Your task to perform on an android device: turn on javascript in the chrome app Image 0: 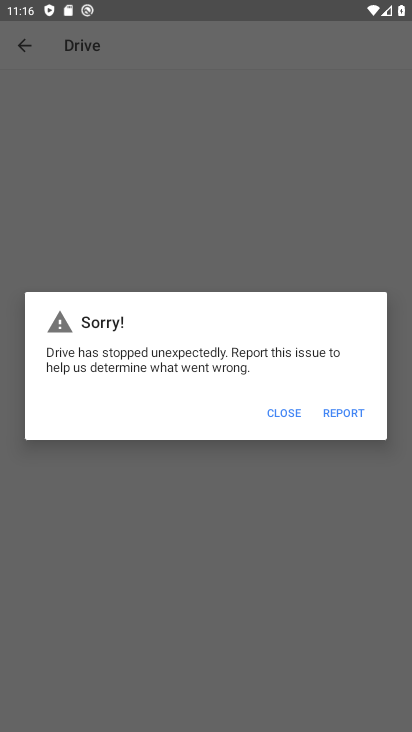
Step 0: click (286, 397)
Your task to perform on an android device: turn on javascript in the chrome app Image 1: 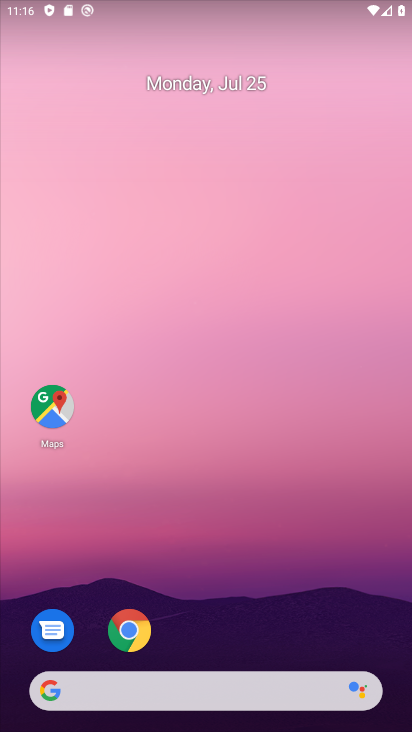
Step 1: drag from (233, 464) to (139, 131)
Your task to perform on an android device: turn on javascript in the chrome app Image 2: 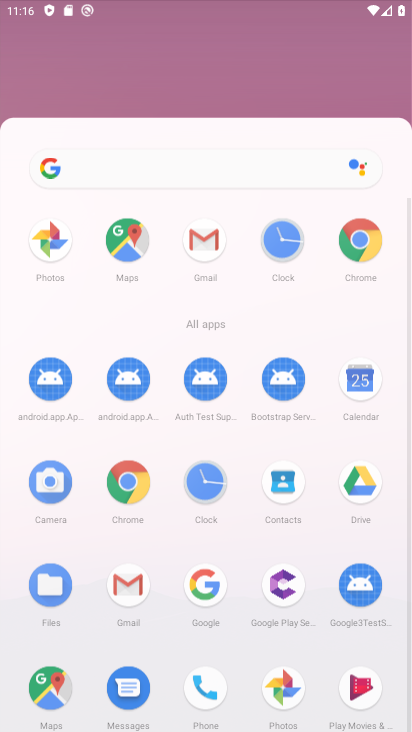
Step 2: drag from (232, 515) to (232, 43)
Your task to perform on an android device: turn on javascript in the chrome app Image 3: 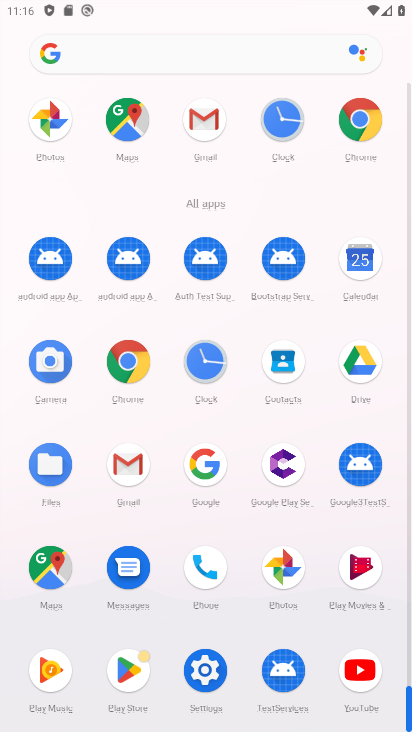
Step 3: click (352, 125)
Your task to perform on an android device: turn on javascript in the chrome app Image 4: 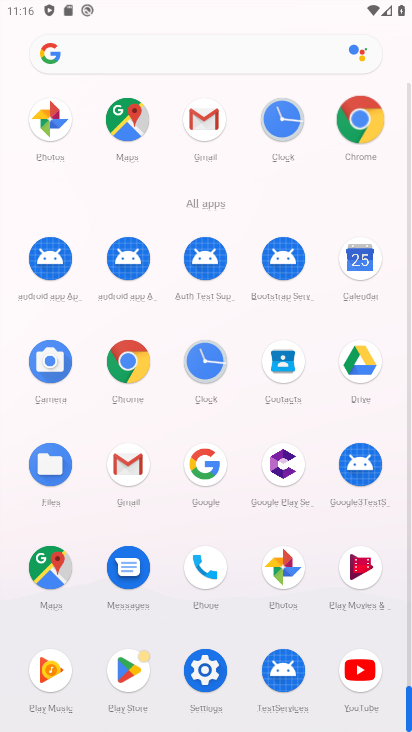
Step 4: click (358, 127)
Your task to perform on an android device: turn on javascript in the chrome app Image 5: 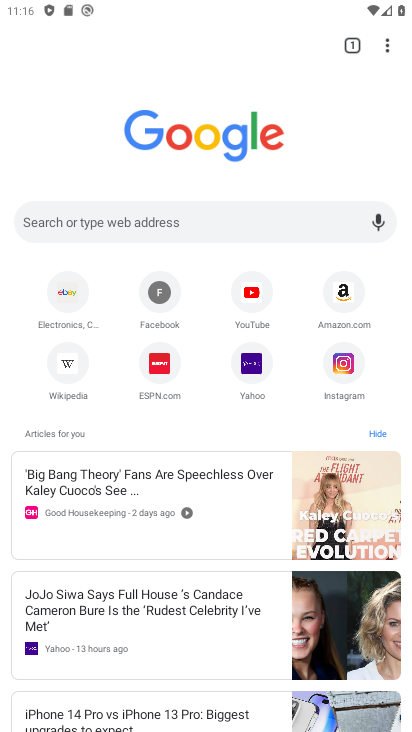
Step 5: drag from (387, 40) to (226, 369)
Your task to perform on an android device: turn on javascript in the chrome app Image 6: 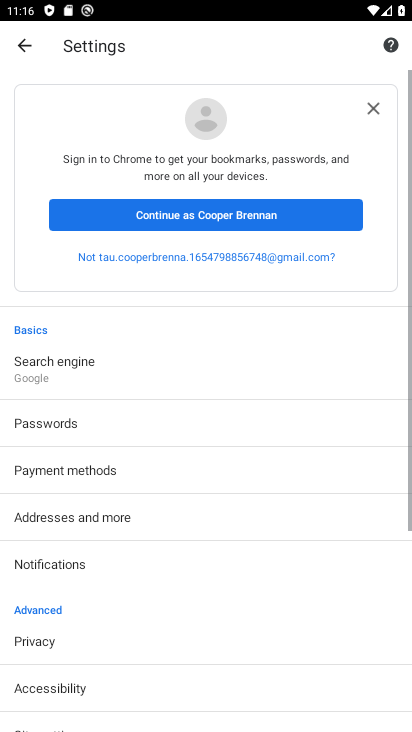
Step 6: drag from (120, 541) to (104, 204)
Your task to perform on an android device: turn on javascript in the chrome app Image 7: 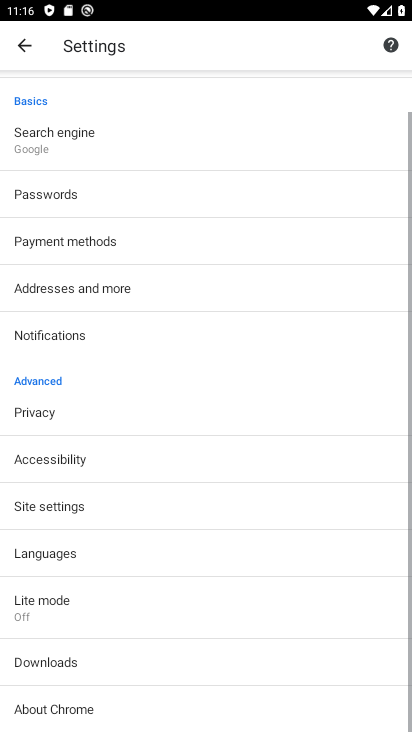
Step 7: drag from (140, 552) to (140, 60)
Your task to perform on an android device: turn on javascript in the chrome app Image 8: 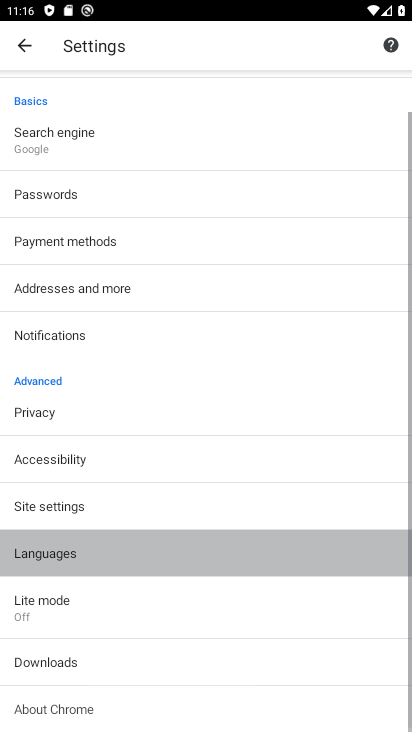
Step 8: drag from (139, 517) to (88, 226)
Your task to perform on an android device: turn on javascript in the chrome app Image 9: 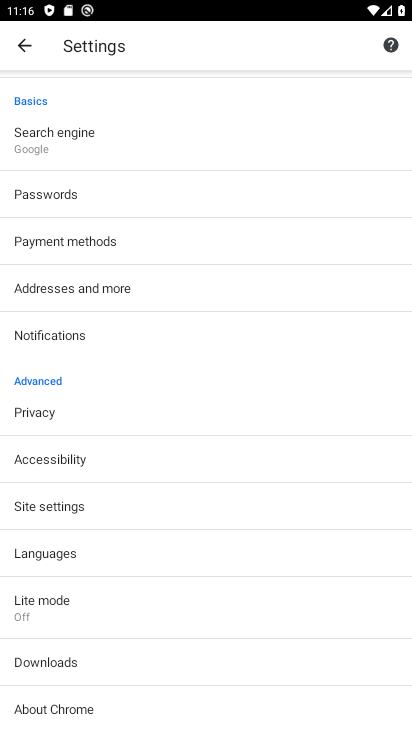
Step 9: click (44, 494)
Your task to perform on an android device: turn on javascript in the chrome app Image 10: 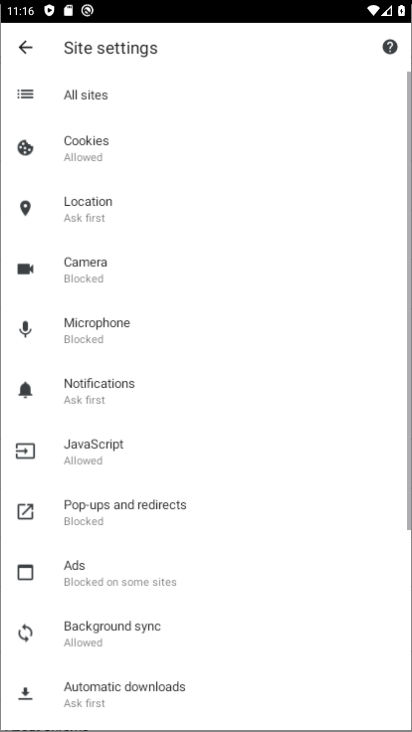
Step 10: click (40, 507)
Your task to perform on an android device: turn on javascript in the chrome app Image 11: 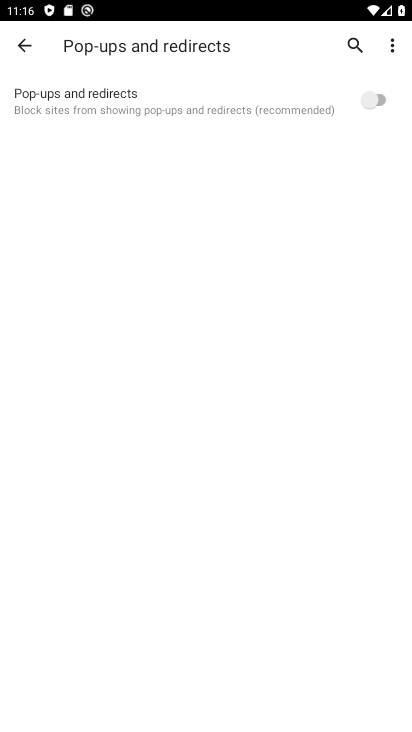
Step 11: click (18, 42)
Your task to perform on an android device: turn on javascript in the chrome app Image 12: 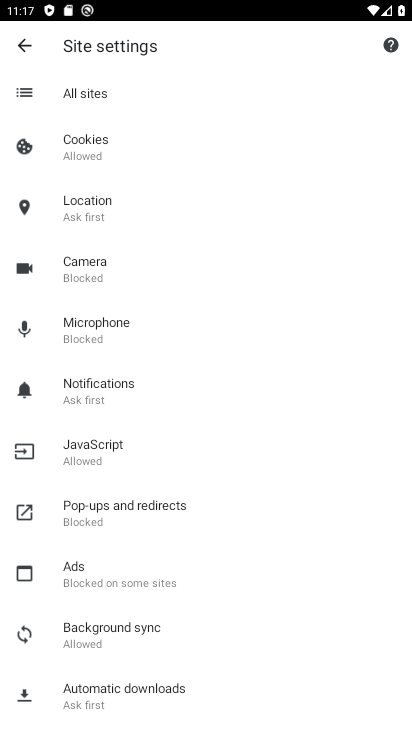
Step 12: click (95, 455)
Your task to perform on an android device: turn on javascript in the chrome app Image 13: 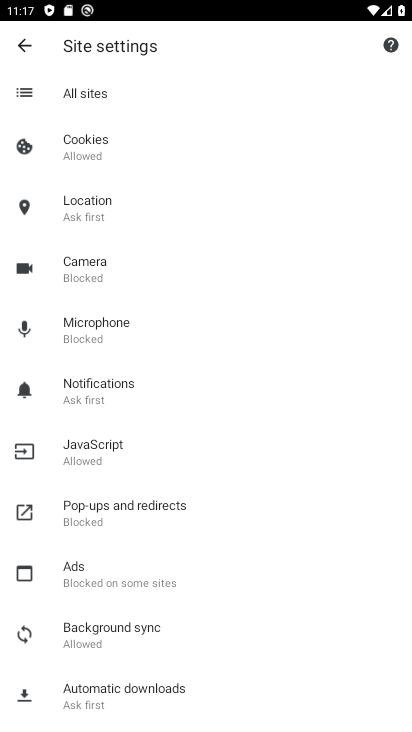
Step 13: click (95, 455)
Your task to perform on an android device: turn on javascript in the chrome app Image 14: 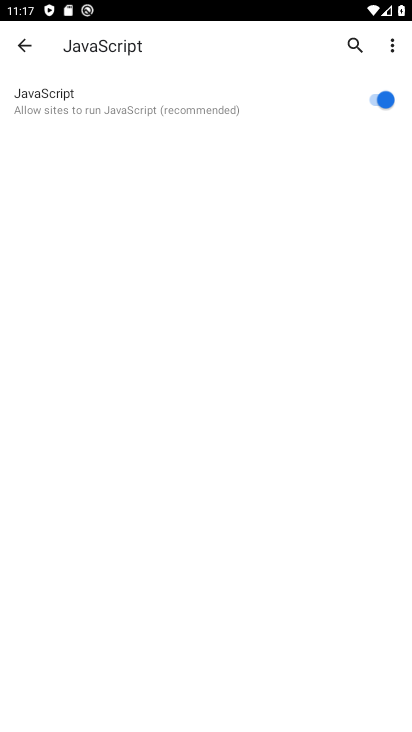
Step 14: click (95, 455)
Your task to perform on an android device: turn on javascript in the chrome app Image 15: 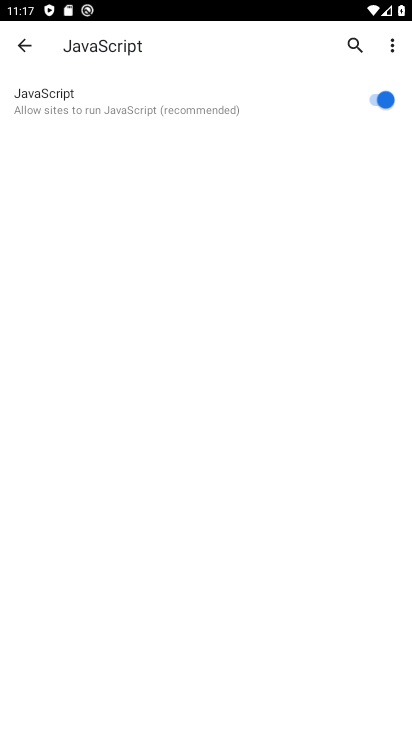
Step 15: task complete